Your task to perform on an android device: set the timer Image 0: 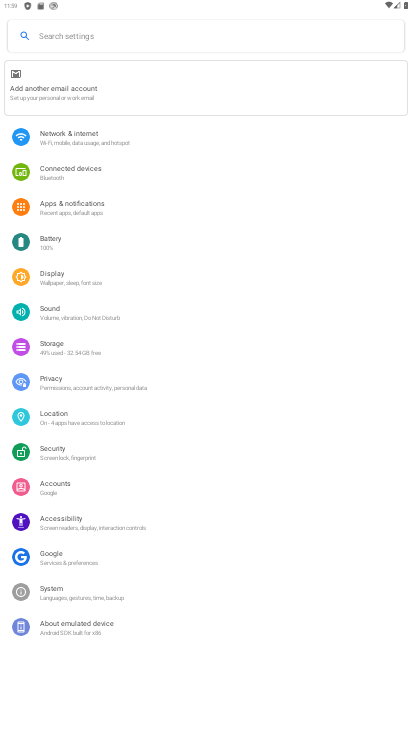
Step 0: press home button
Your task to perform on an android device: set the timer Image 1: 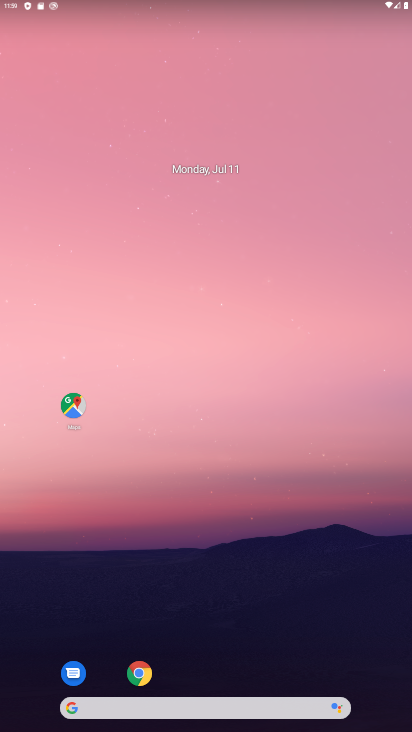
Step 1: drag from (287, 650) to (238, 148)
Your task to perform on an android device: set the timer Image 2: 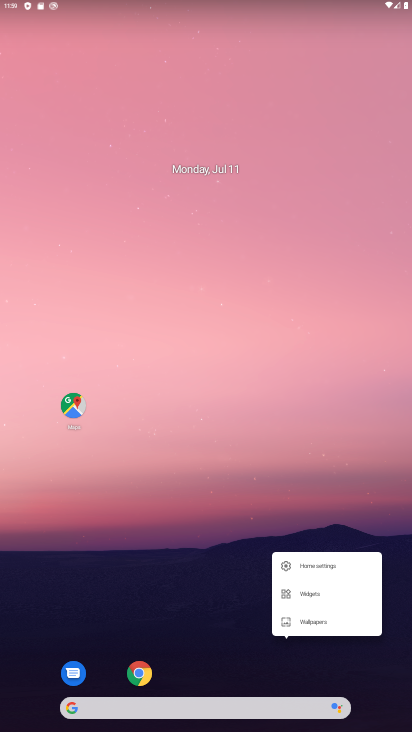
Step 2: drag from (228, 666) to (221, 92)
Your task to perform on an android device: set the timer Image 3: 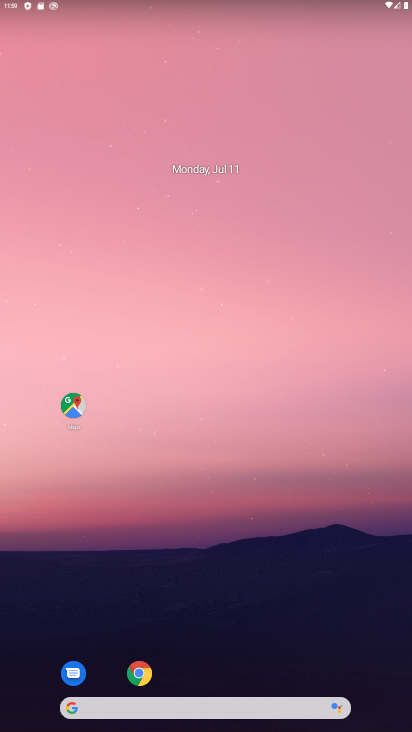
Step 3: drag from (357, 654) to (303, 137)
Your task to perform on an android device: set the timer Image 4: 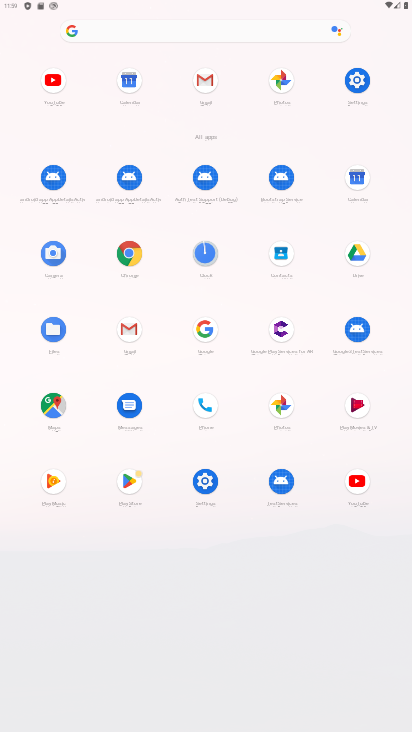
Step 4: click (206, 254)
Your task to perform on an android device: set the timer Image 5: 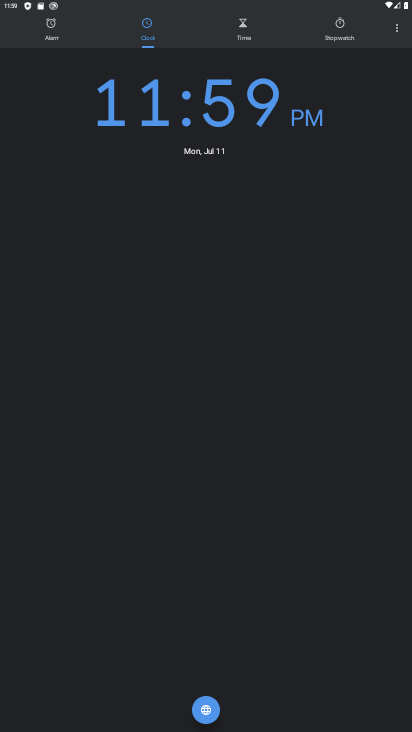
Step 5: click (241, 29)
Your task to perform on an android device: set the timer Image 6: 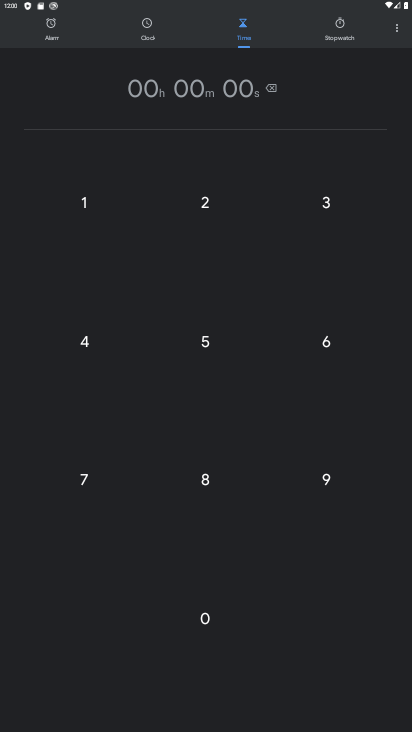
Step 6: type "10000"
Your task to perform on an android device: set the timer Image 7: 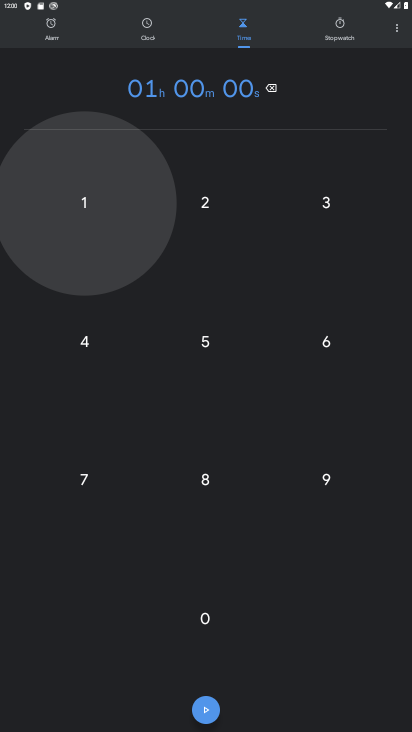
Step 7: click (209, 717)
Your task to perform on an android device: set the timer Image 8: 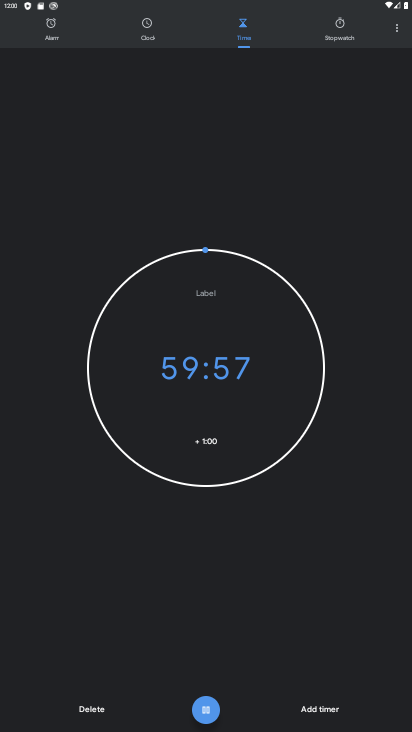
Step 8: task complete